Your task to perform on an android device: check the backup settings in the google photos Image 0: 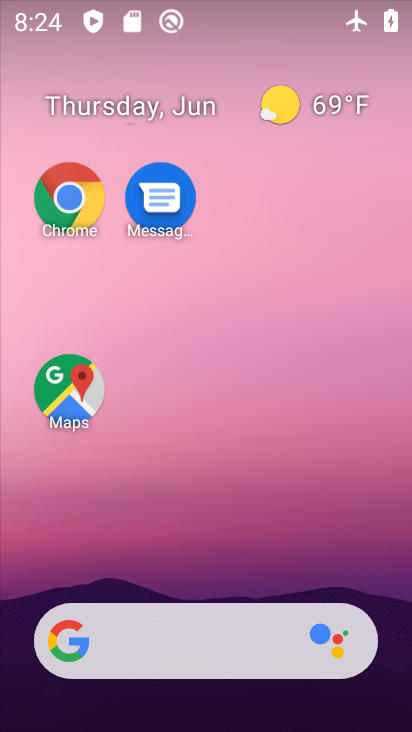
Step 0: drag from (188, 593) to (161, 116)
Your task to perform on an android device: check the backup settings in the google photos Image 1: 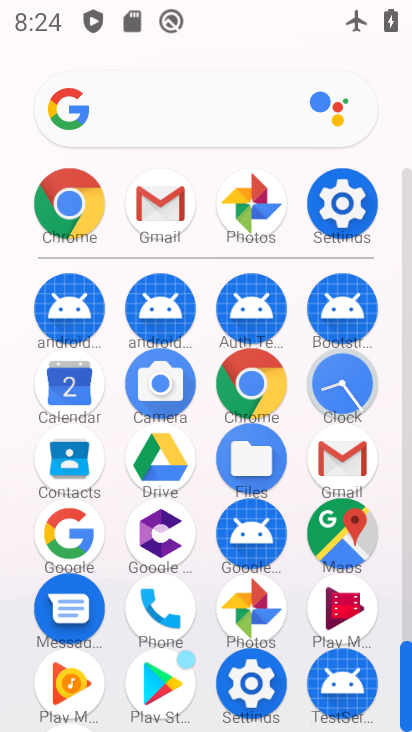
Step 1: click (232, 600)
Your task to perform on an android device: check the backup settings in the google photos Image 2: 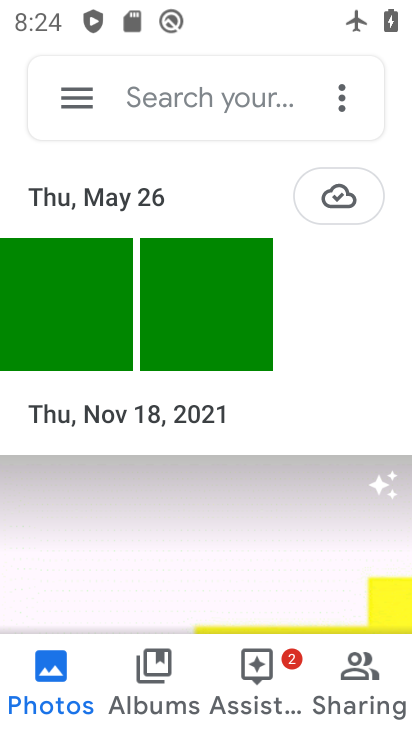
Step 2: click (48, 107)
Your task to perform on an android device: check the backup settings in the google photos Image 3: 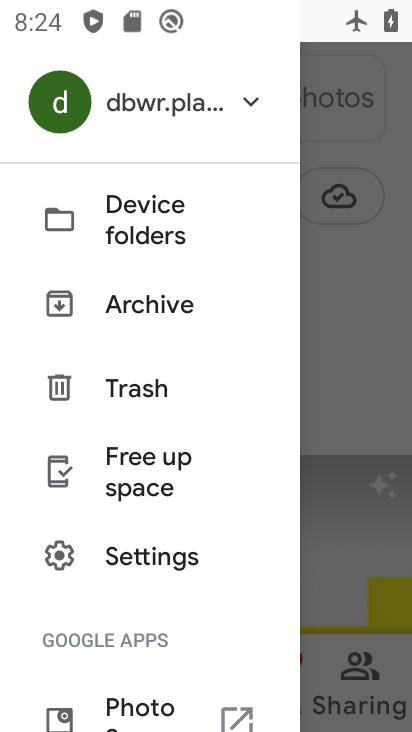
Step 3: click (114, 532)
Your task to perform on an android device: check the backup settings in the google photos Image 4: 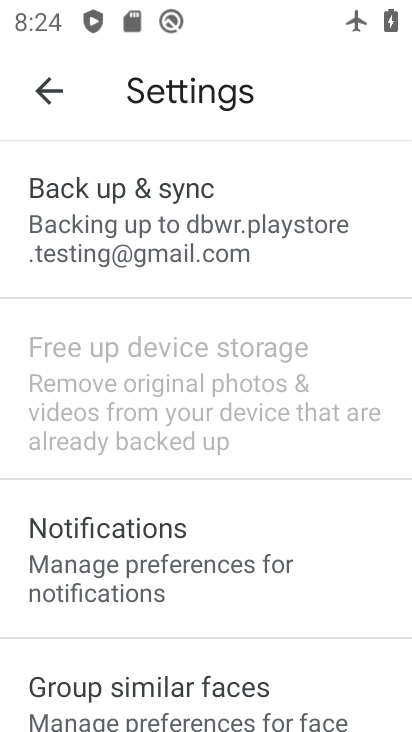
Step 4: click (119, 236)
Your task to perform on an android device: check the backup settings in the google photos Image 5: 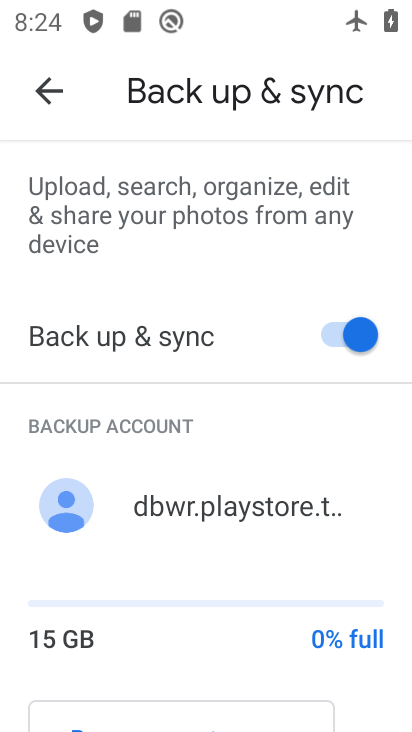
Step 5: task complete